Your task to perform on an android device: Show me the alarms in the clock app Image 0: 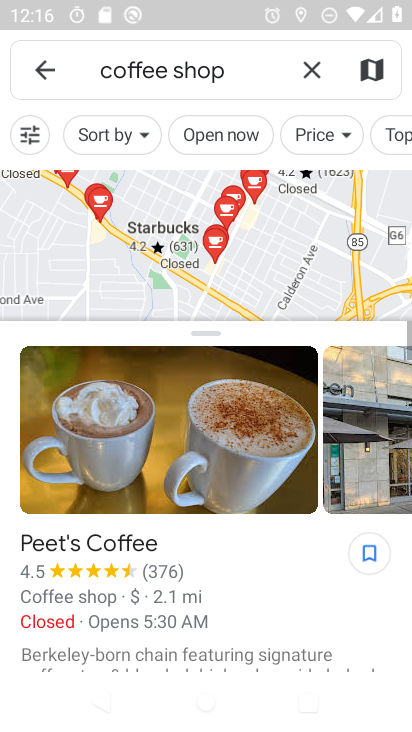
Step 0: press home button
Your task to perform on an android device: Show me the alarms in the clock app Image 1: 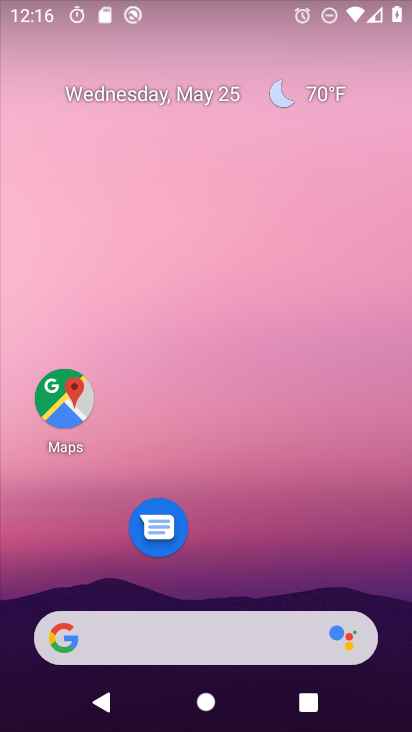
Step 1: drag from (247, 562) to (221, 93)
Your task to perform on an android device: Show me the alarms in the clock app Image 2: 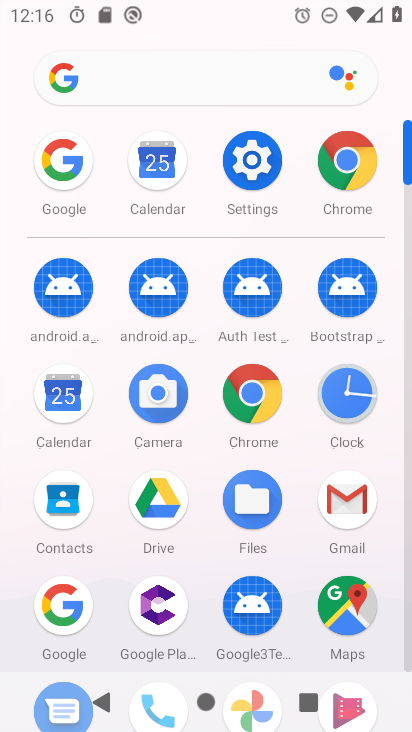
Step 2: click (345, 395)
Your task to perform on an android device: Show me the alarms in the clock app Image 3: 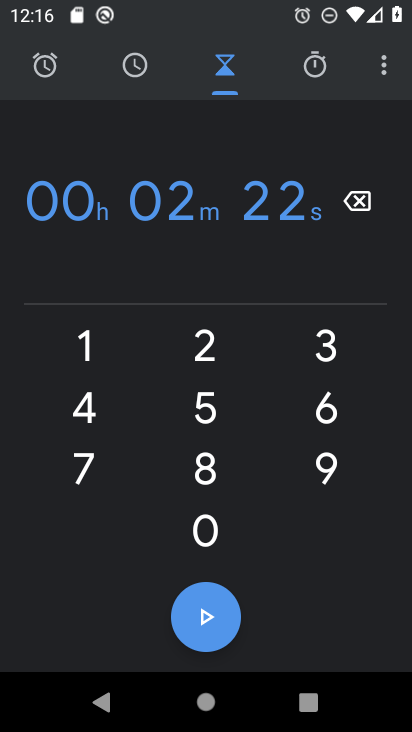
Step 3: click (48, 70)
Your task to perform on an android device: Show me the alarms in the clock app Image 4: 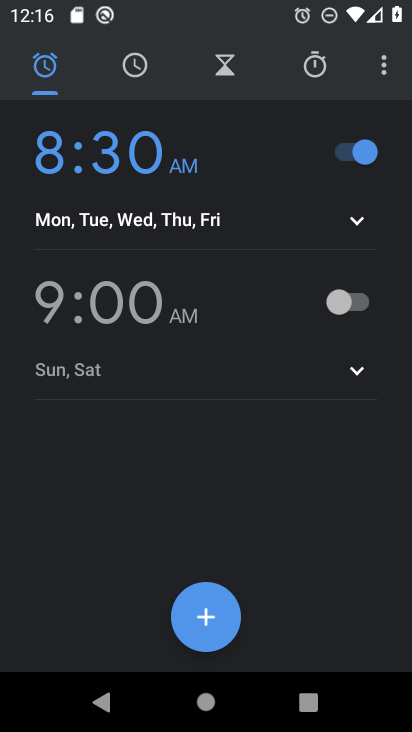
Step 4: task complete